Your task to perform on an android device: turn on wifi Image 0: 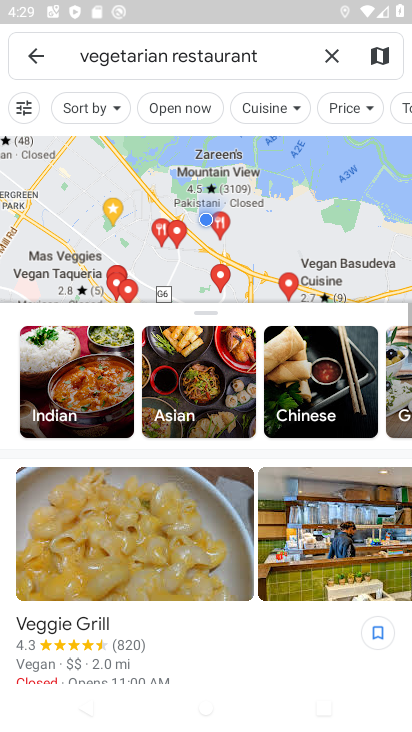
Step 0: press home button
Your task to perform on an android device: turn on wifi Image 1: 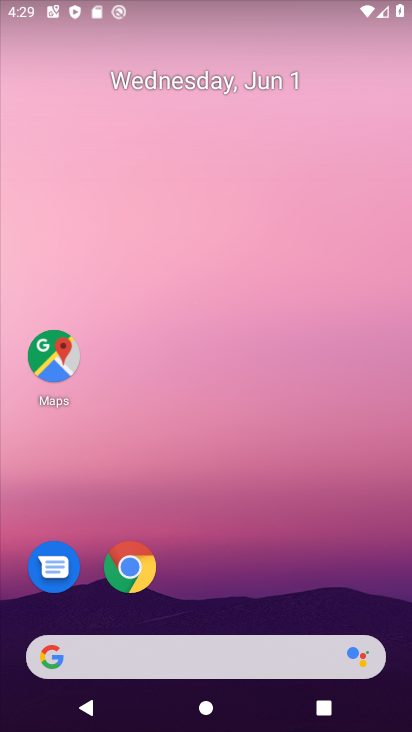
Step 1: task complete